Your task to perform on an android device: Is it going to rain today? Image 0: 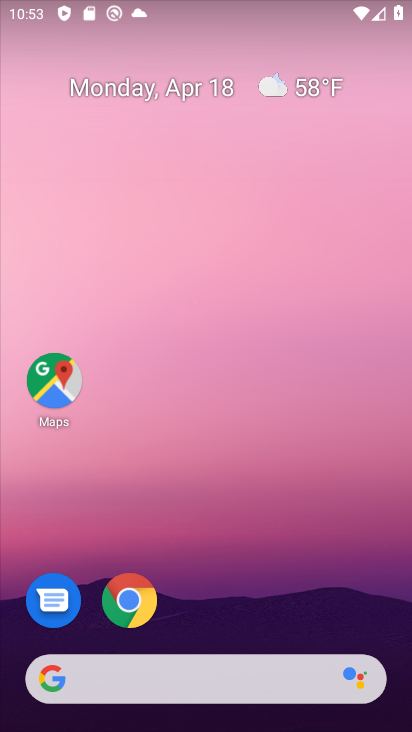
Step 0: click (274, 86)
Your task to perform on an android device: Is it going to rain today? Image 1: 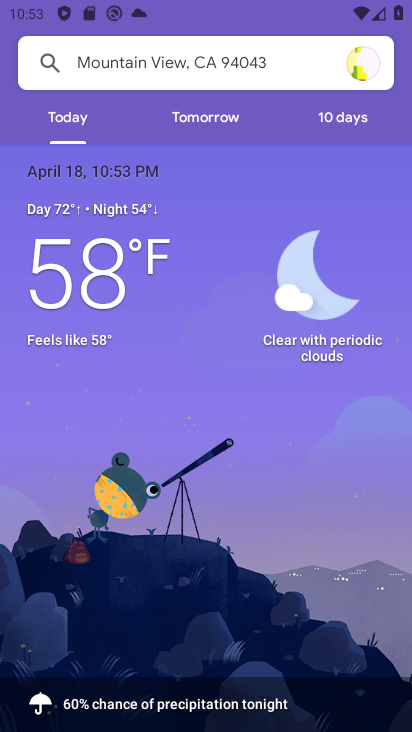
Step 1: task complete